Your task to perform on an android device: set the timer Image 0: 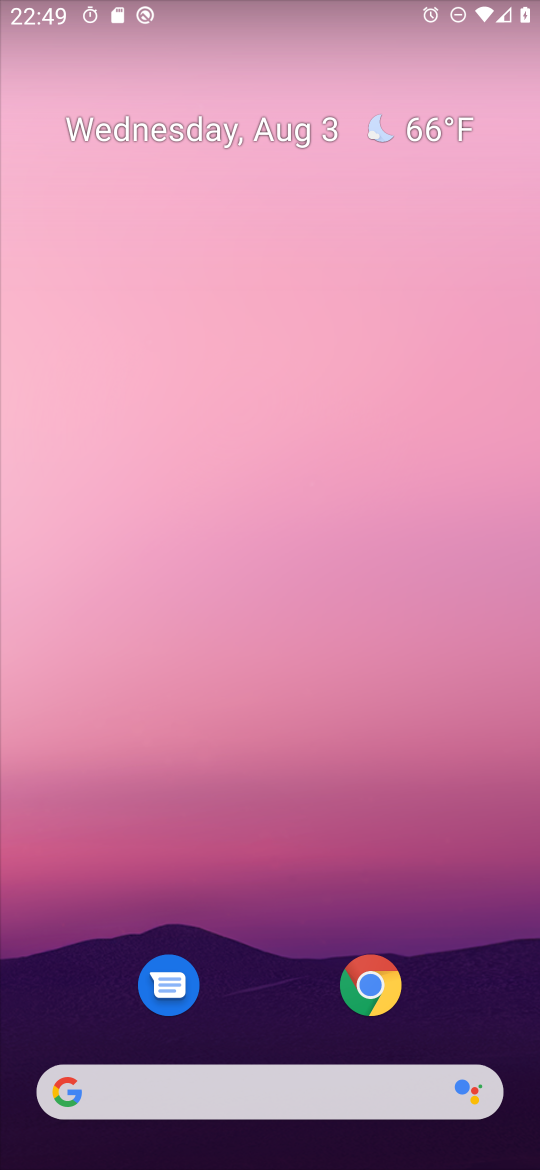
Step 0: drag from (274, 852) to (175, 227)
Your task to perform on an android device: set the timer Image 1: 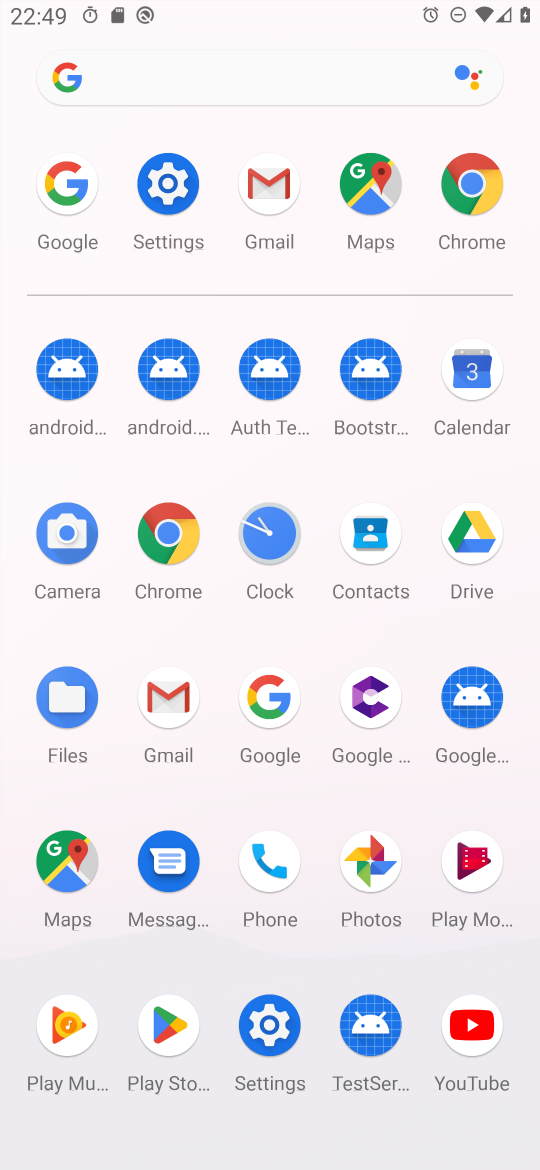
Step 1: click (276, 540)
Your task to perform on an android device: set the timer Image 2: 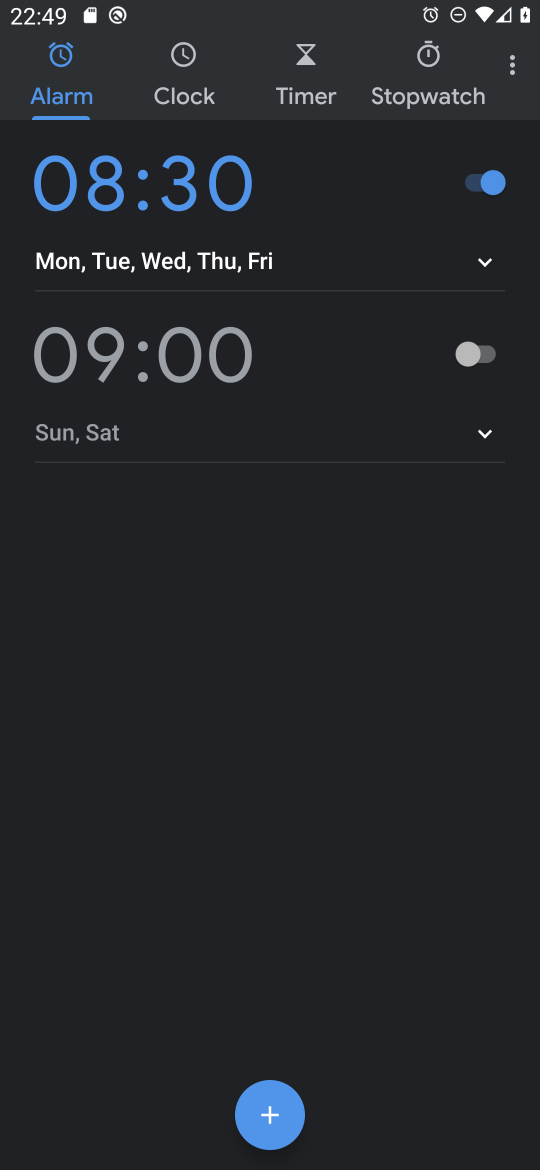
Step 2: click (284, 79)
Your task to perform on an android device: set the timer Image 3: 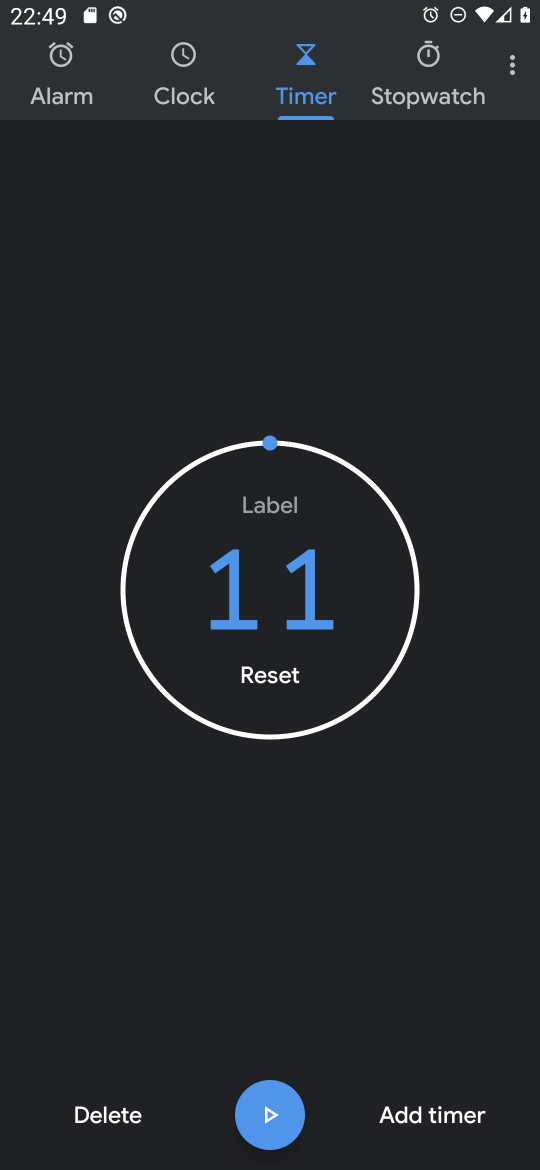
Step 3: click (279, 1129)
Your task to perform on an android device: set the timer Image 4: 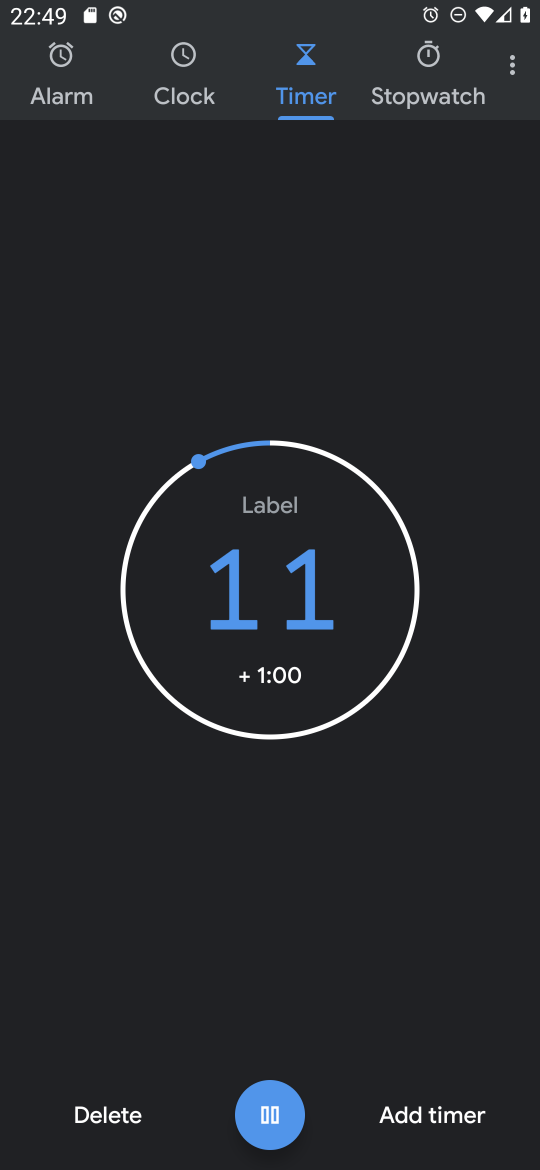
Step 4: task complete